Your task to perform on an android device: Turn on the flashlight Image 0: 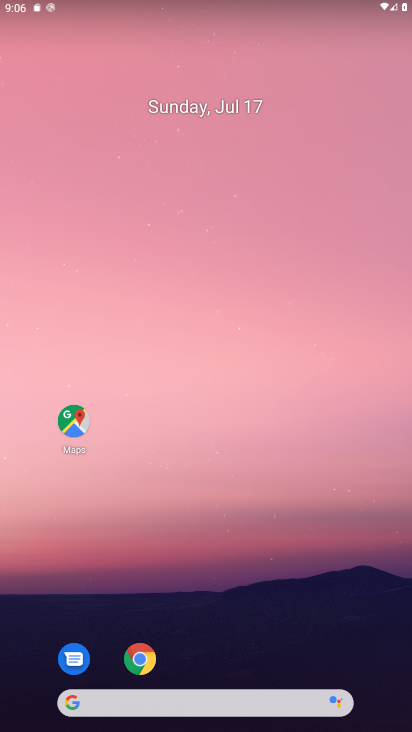
Step 0: drag from (182, 7) to (198, 461)
Your task to perform on an android device: Turn on the flashlight Image 1: 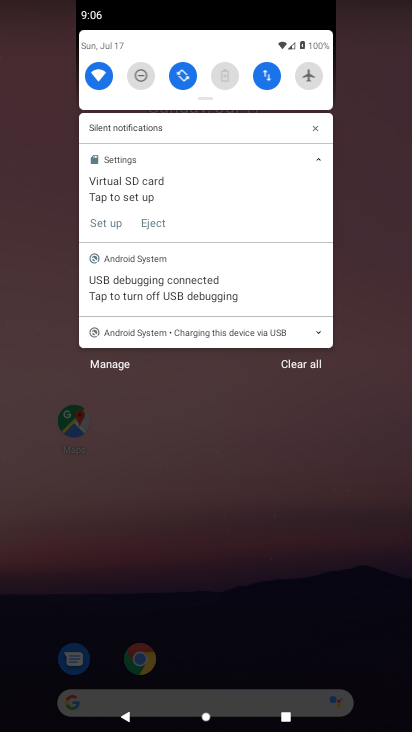
Step 1: task complete